Your task to perform on an android device: set the stopwatch Image 0: 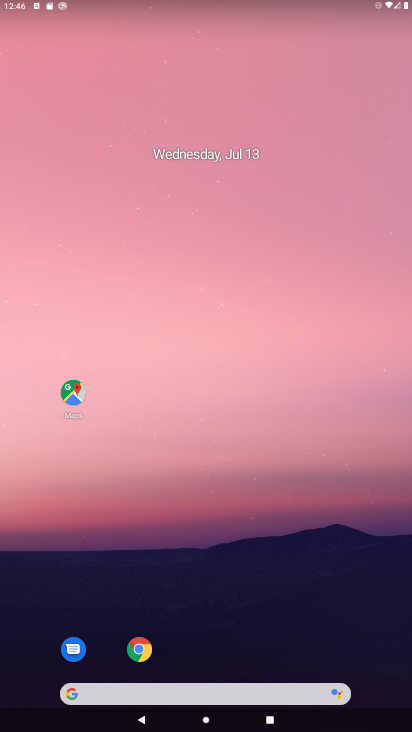
Step 0: drag from (373, 668) to (332, 130)
Your task to perform on an android device: set the stopwatch Image 1: 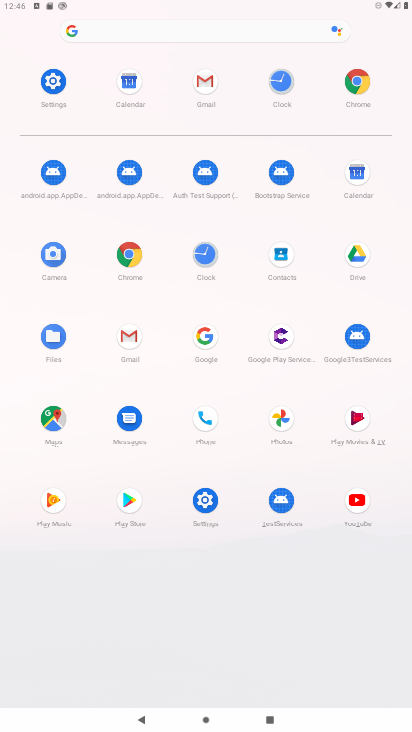
Step 1: click (204, 250)
Your task to perform on an android device: set the stopwatch Image 2: 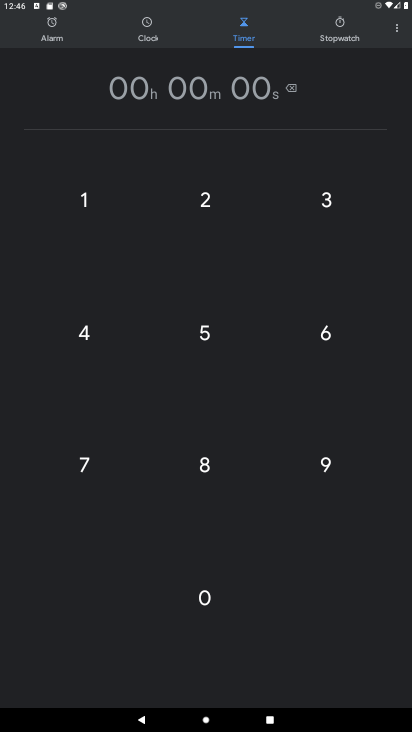
Step 2: click (337, 21)
Your task to perform on an android device: set the stopwatch Image 3: 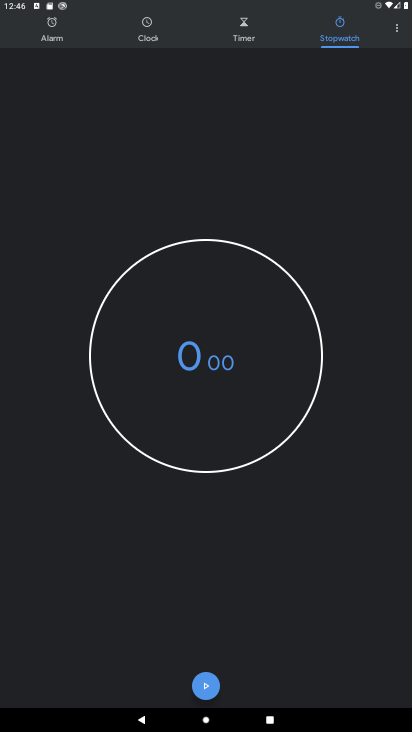
Step 3: task complete